Your task to perform on an android device: Do I have any events today? Image 0: 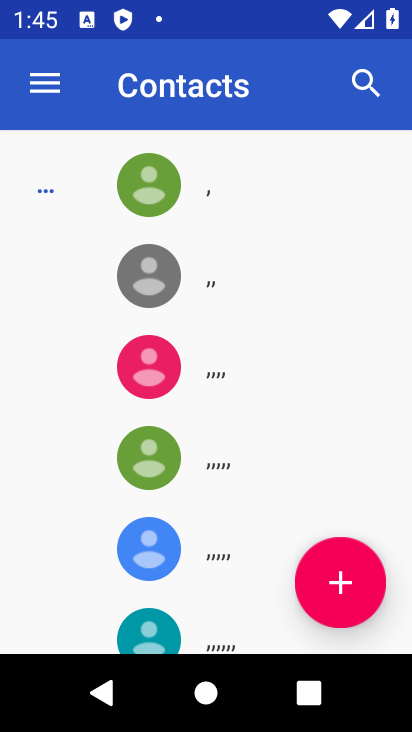
Step 0: press home button
Your task to perform on an android device: Do I have any events today? Image 1: 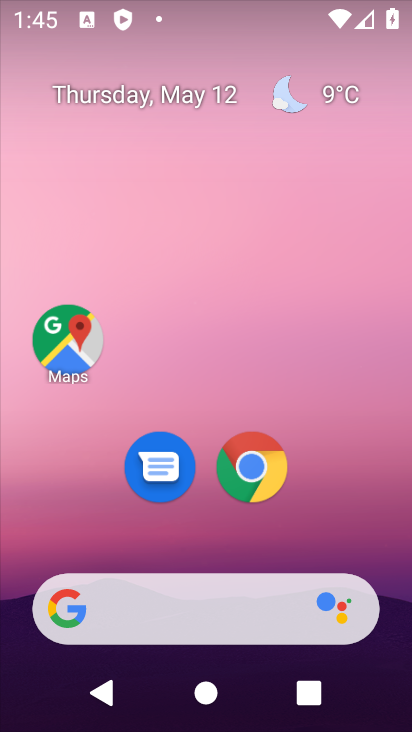
Step 1: drag from (333, 533) to (347, 143)
Your task to perform on an android device: Do I have any events today? Image 2: 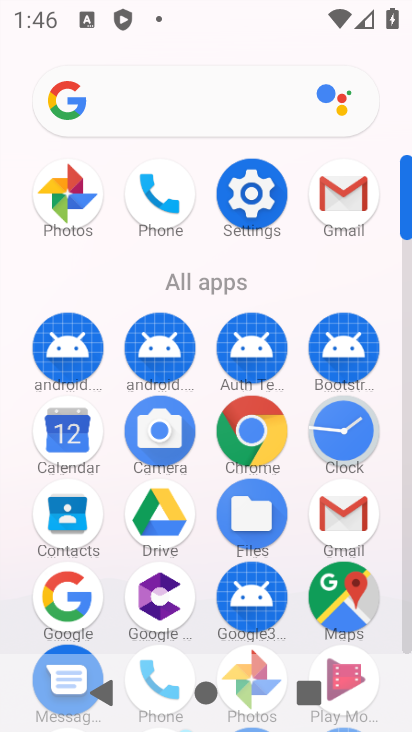
Step 2: click (59, 436)
Your task to perform on an android device: Do I have any events today? Image 3: 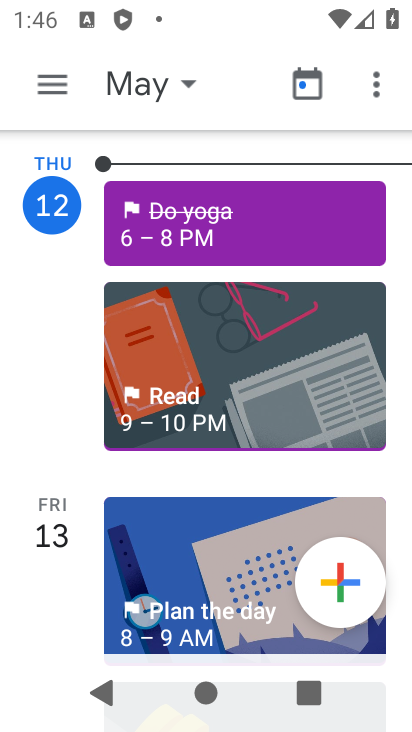
Step 3: click (57, 81)
Your task to perform on an android device: Do I have any events today? Image 4: 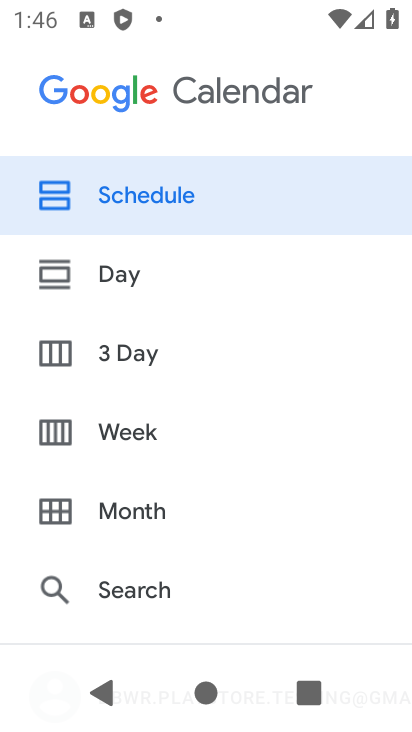
Step 4: drag from (167, 573) to (192, 257)
Your task to perform on an android device: Do I have any events today? Image 5: 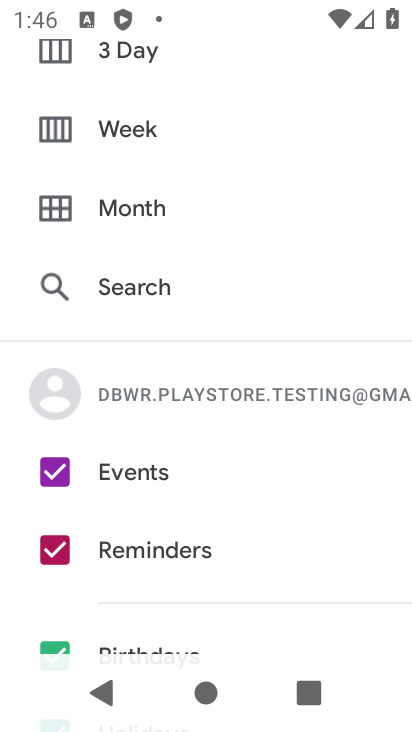
Step 5: click (168, 466)
Your task to perform on an android device: Do I have any events today? Image 6: 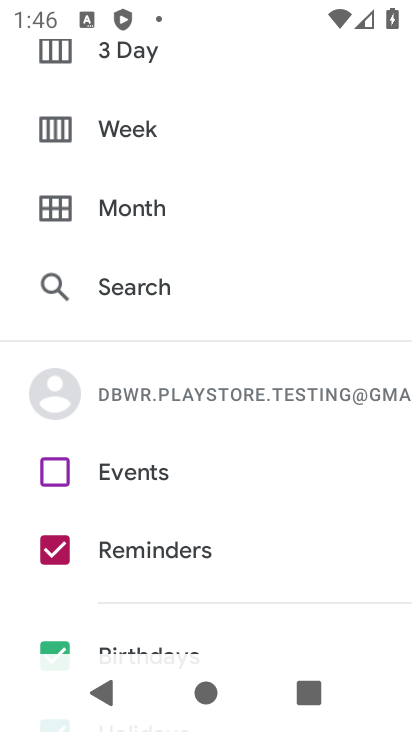
Step 6: click (116, 478)
Your task to perform on an android device: Do I have any events today? Image 7: 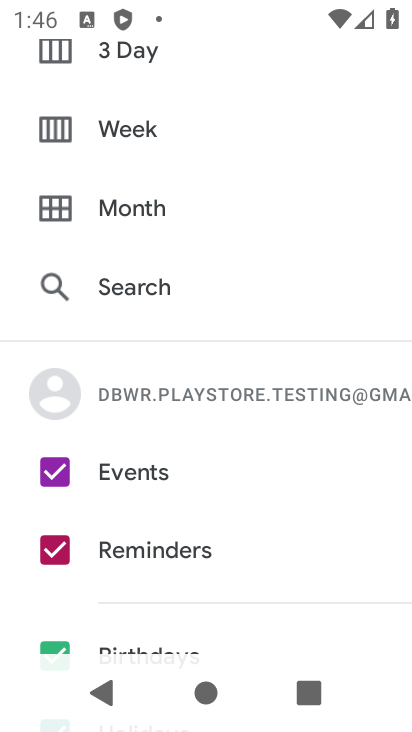
Step 7: drag from (188, 227) to (195, 497)
Your task to perform on an android device: Do I have any events today? Image 8: 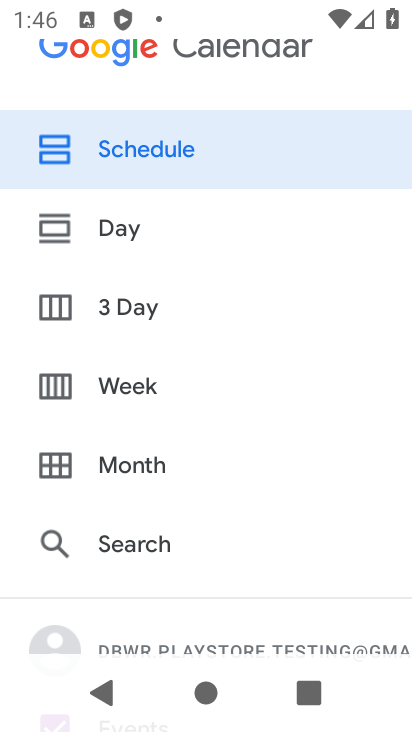
Step 8: click (114, 227)
Your task to perform on an android device: Do I have any events today? Image 9: 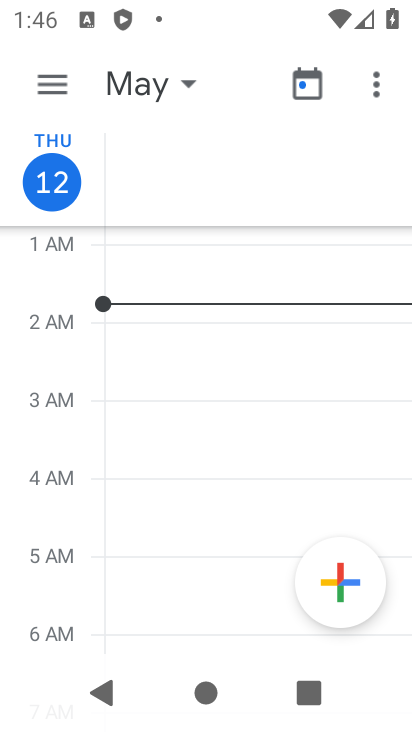
Step 9: task complete